Your task to perform on an android device: set default search engine in the chrome app Image 0: 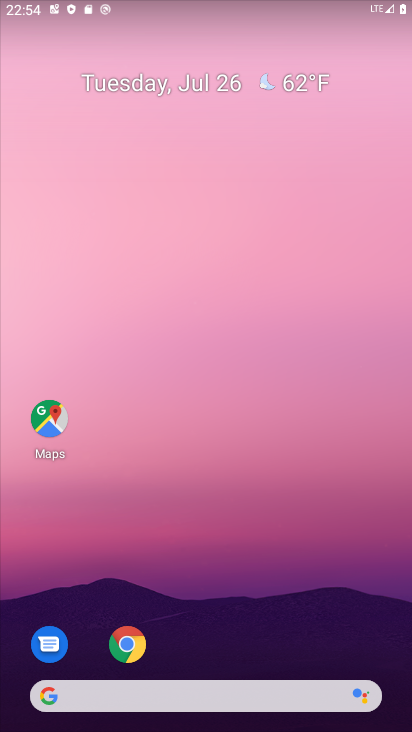
Step 0: click (129, 653)
Your task to perform on an android device: set default search engine in the chrome app Image 1: 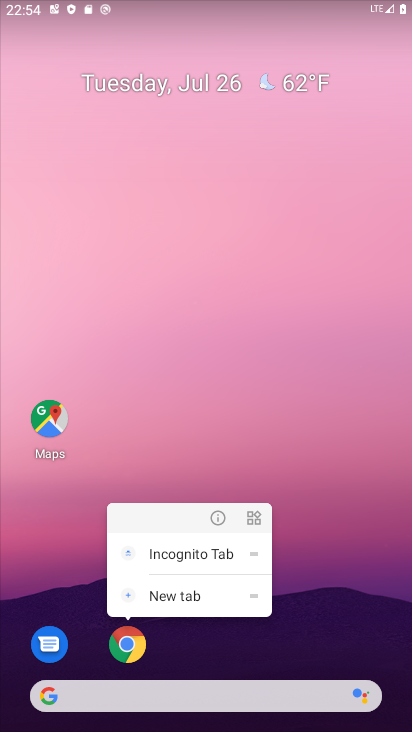
Step 1: click (132, 650)
Your task to perform on an android device: set default search engine in the chrome app Image 2: 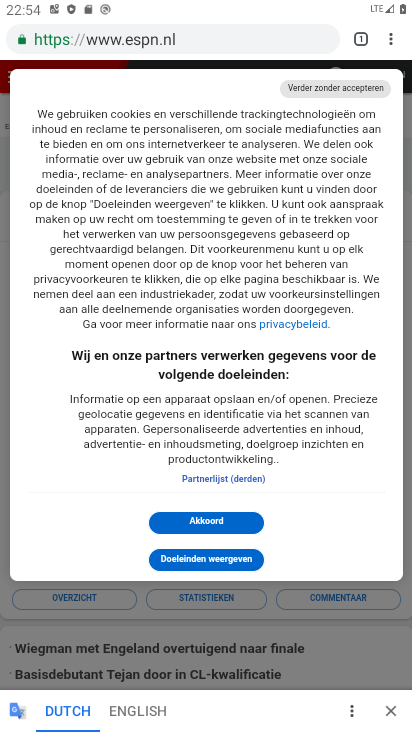
Step 2: click (393, 37)
Your task to perform on an android device: set default search engine in the chrome app Image 3: 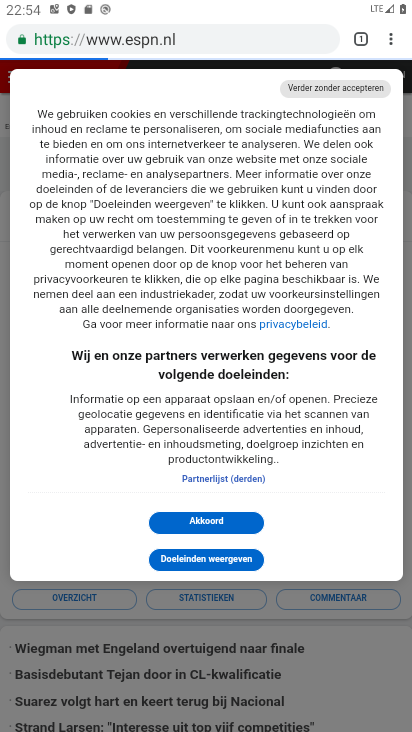
Step 3: drag from (393, 37) to (272, 473)
Your task to perform on an android device: set default search engine in the chrome app Image 4: 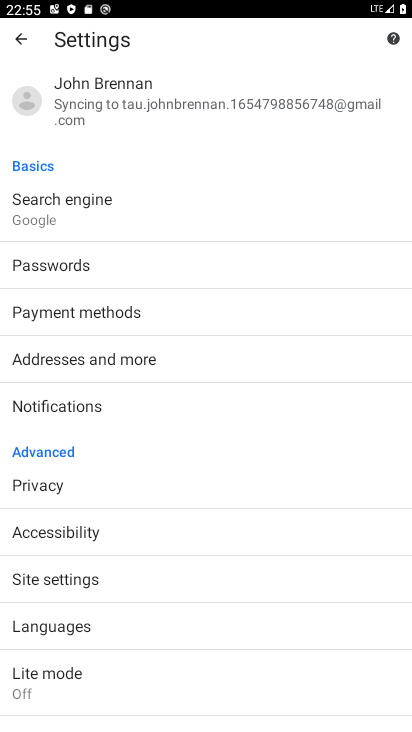
Step 4: click (35, 211)
Your task to perform on an android device: set default search engine in the chrome app Image 5: 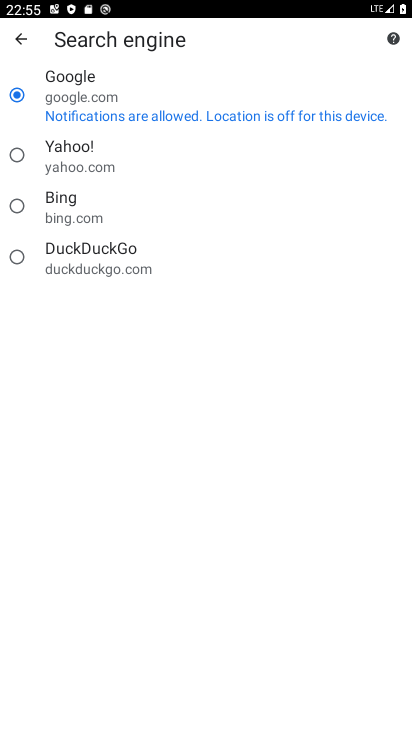
Step 5: click (20, 153)
Your task to perform on an android device: set default search engine in the chrome app Image 6: 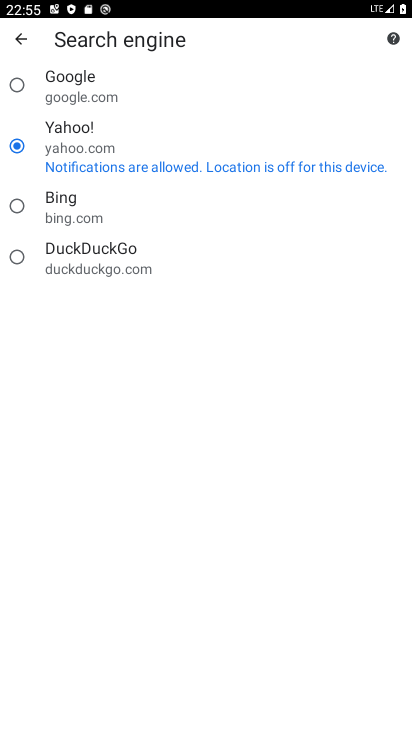
Step 6: task complete